Your task to perform on an android device: choose inbox layout in the gmail app Image 0: 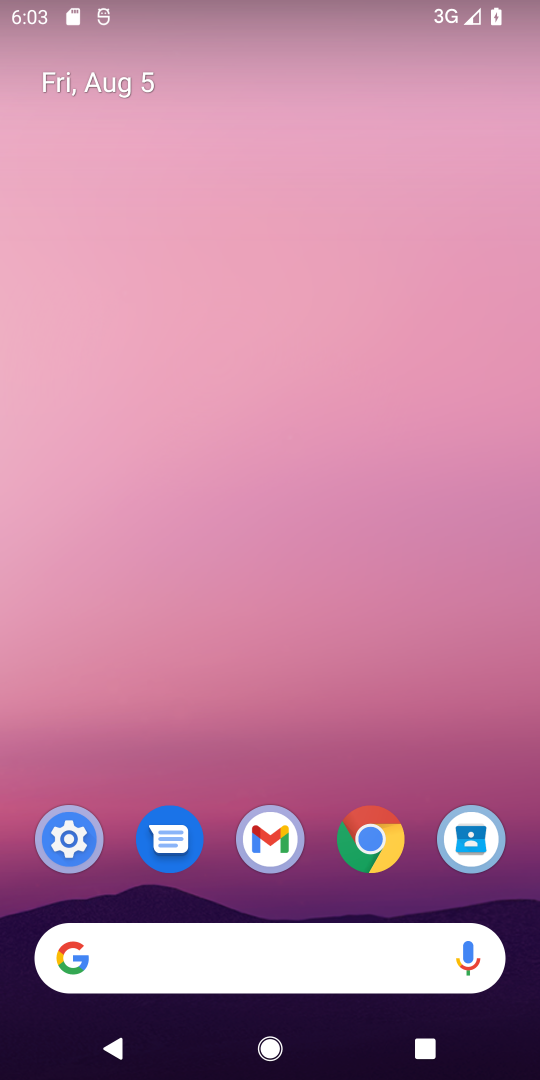
Step 0: click (268, 805)
Your task to perform on an android device: choose inbox layout in the gmail app Image 1: 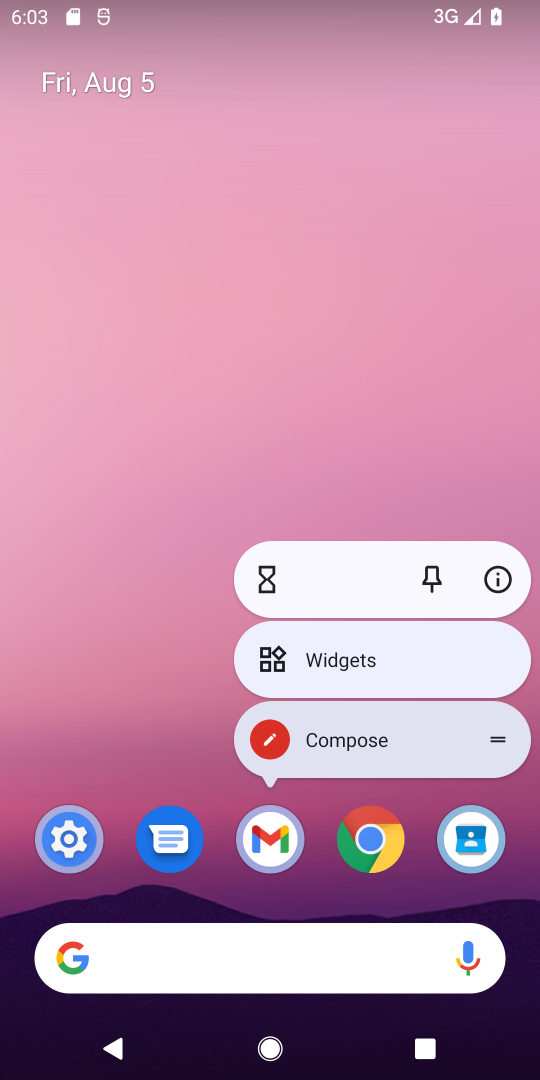
Step 1: click (258, 885)
Your task to perform on an android device: choose inbox layout in the gmail app Image 2: 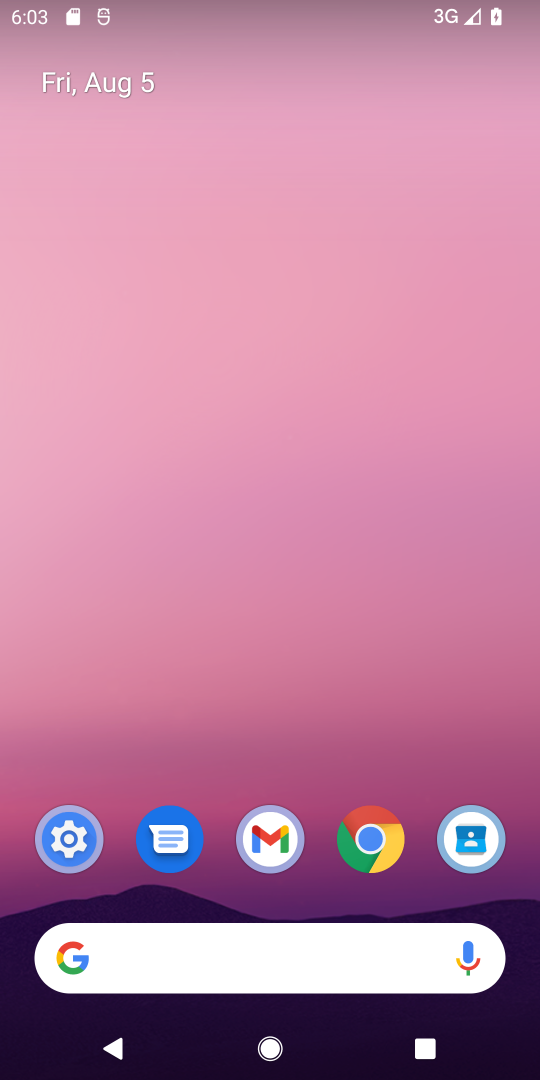
Step 2: click (275, 822)
Your task to perform on an android device: choose inbox layout in the gmail app Image 3: 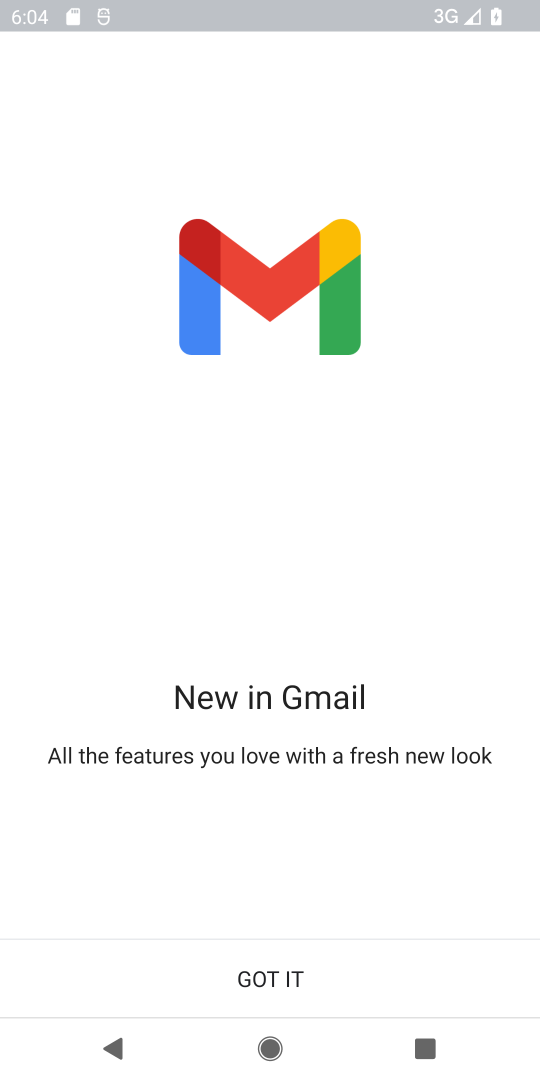
Step 3: click (311, 958)
Your task to perform on an android device: choose inbox layout in the gmail app Image 4: 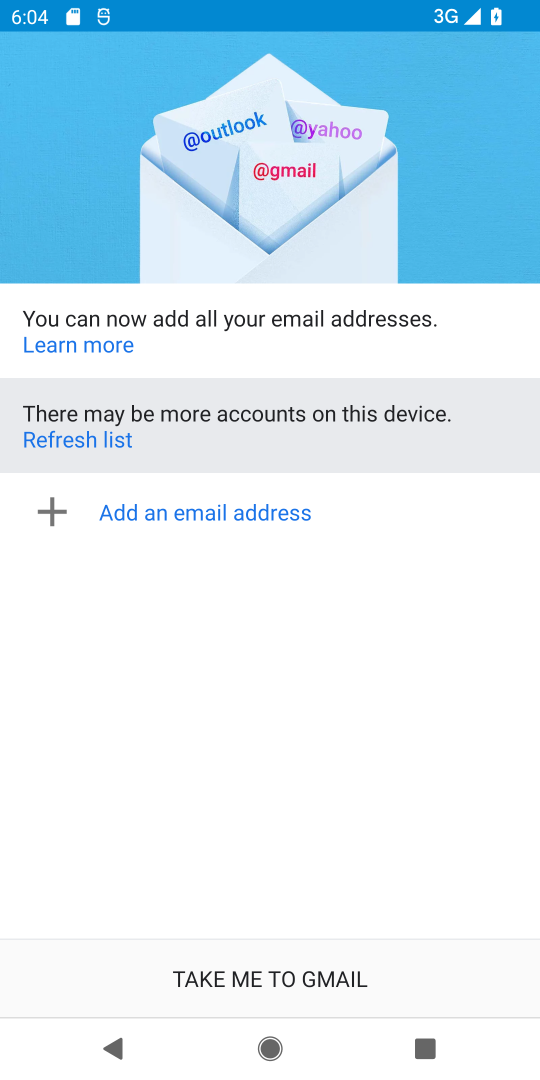
Step 4: task complete